Your task to perform on an android device: turn off notifications settings in the gmail app Image 0: 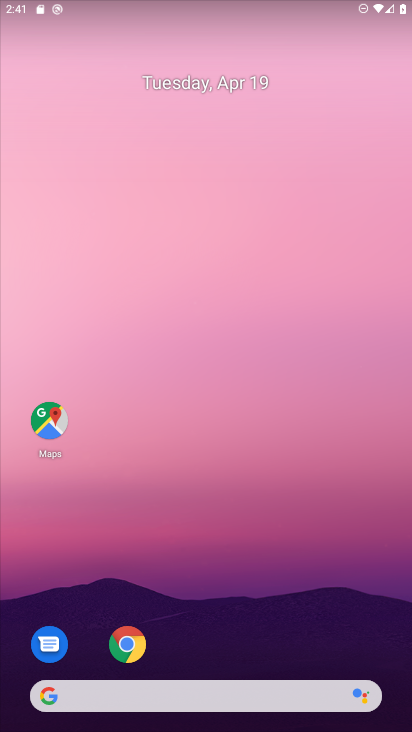
Step 0: drag from (302, 487) to (265, 190)
Your task to perform on an android device: turn off notifications settings in the gmail app Image 1: 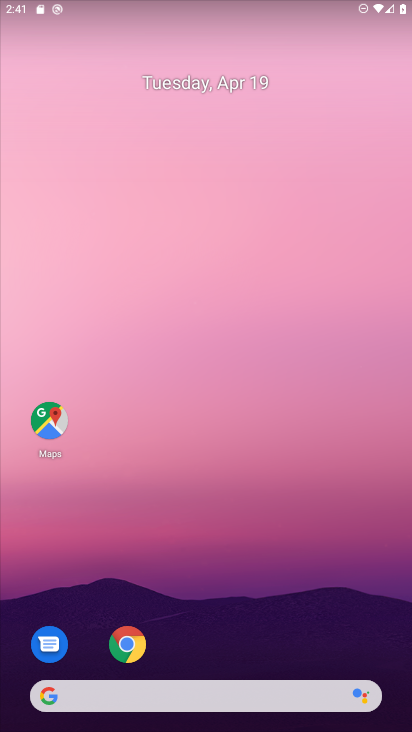
Step 1: drag from (213, 640) to (131, 92)
Your task to perform on an android device: turn off notifications settings in the gmail app Image 2: 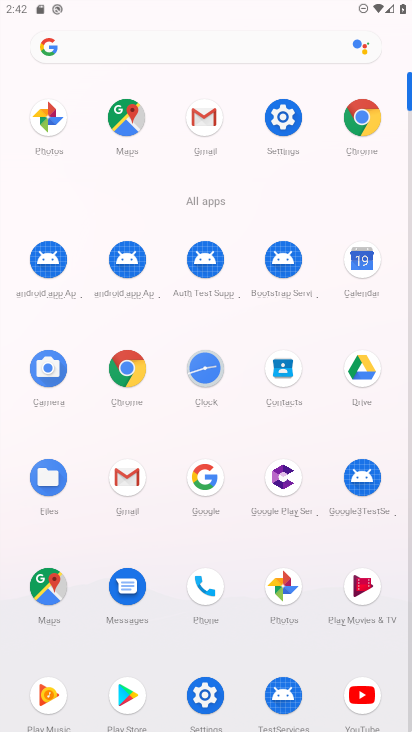
Step 2: click (205, 123)
Your task to perform on an android device: turn off notifications settings in the gmail app Image 3: 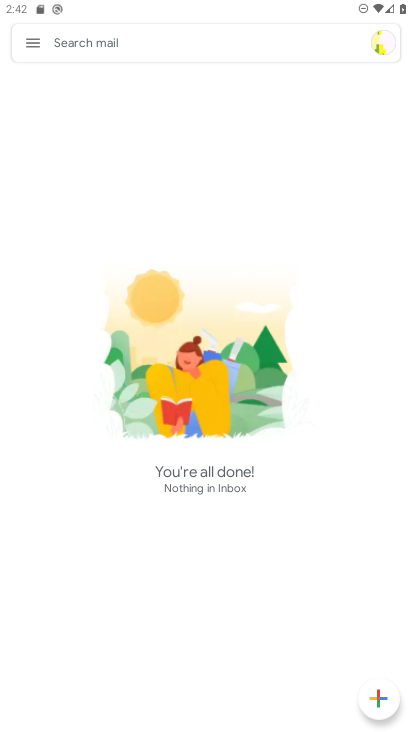
Step 3: click (33, 43)
Your task to perform on an android device: turn off notifications settings in the gmail app Image 4: 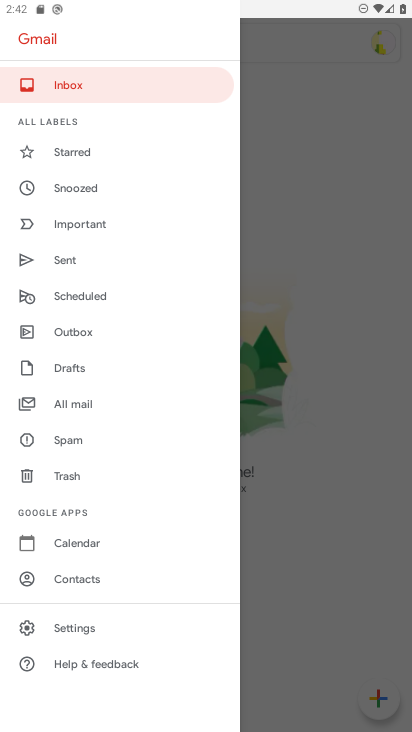
Step 4: click (78, 628)
Your task to perform on an android device: turn off notifications settings in the gmail app Image 5: 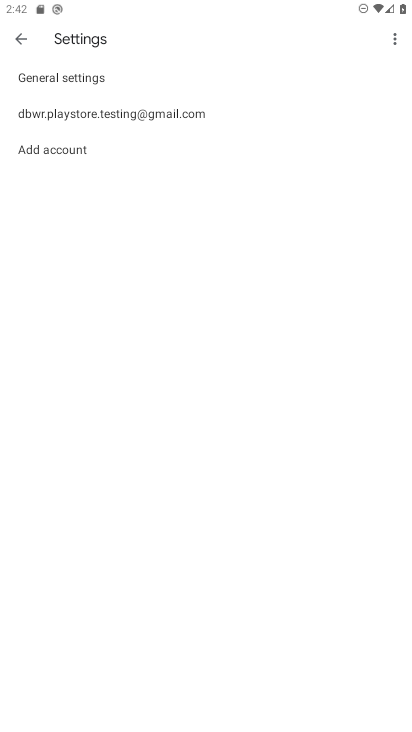
Step 5: click (91, 111)
Your task to perform on an android device: turn off notifications settings in the gmail app Image 6: 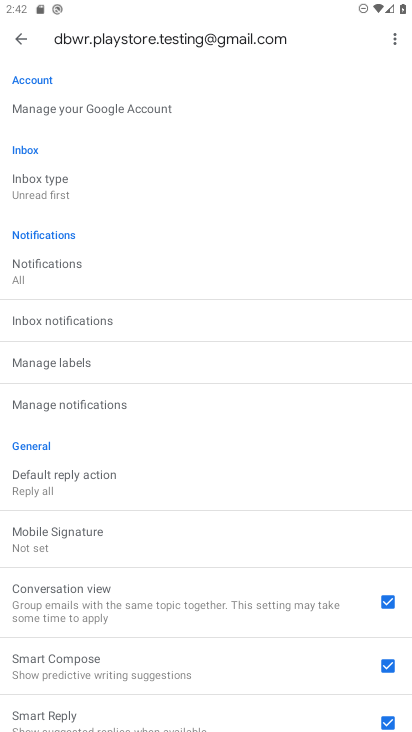
Step 6: click (41, 407)
Your task to perform on an android device: turn off notifications settings in the gmail app Image 7: 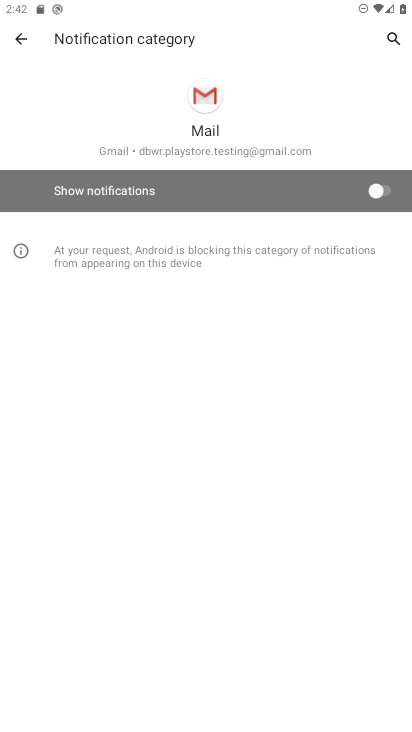
Step 7: task complete